Your task to perform on an android device: set default search engine in the chrome app Image 0: 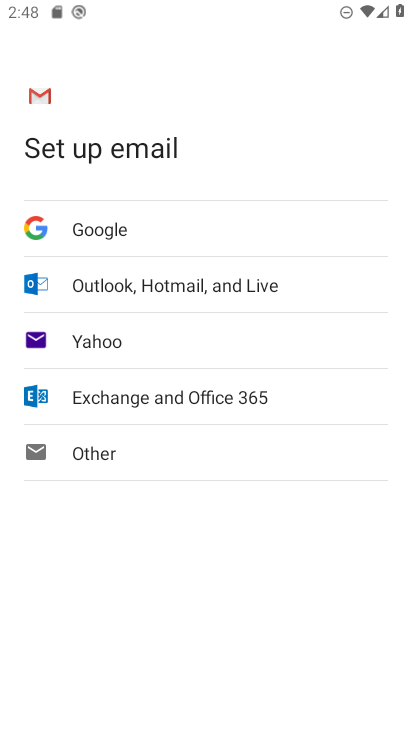
Step 0: press home button
Your task to perform on an android device: set default search engine in the chrome app Image 1: 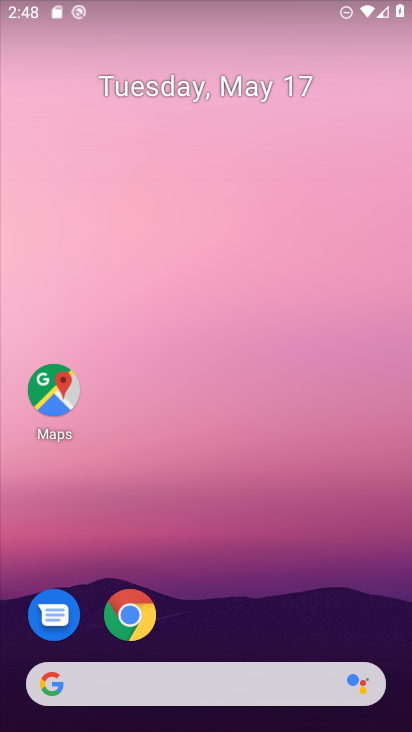
Step 1: click (130, 615)
Your task to perform on an android device: set default search engine in the chrome app Image 2: 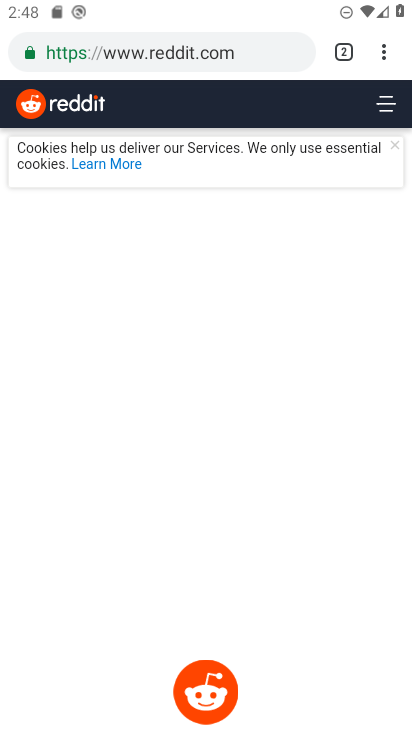
Step 2: click (384, 54)
Your task to perform on an android device: set default search engine in the chrome app Image 3: 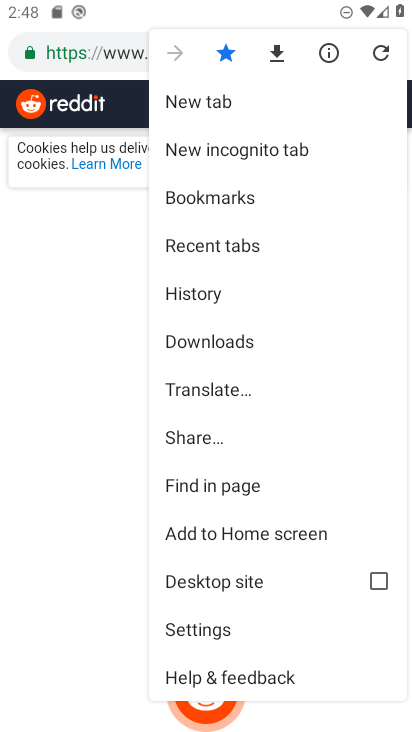
Step 3: click (199, 618)
Your task to perform on an android device: set default search engine in the chrome app Image 4: 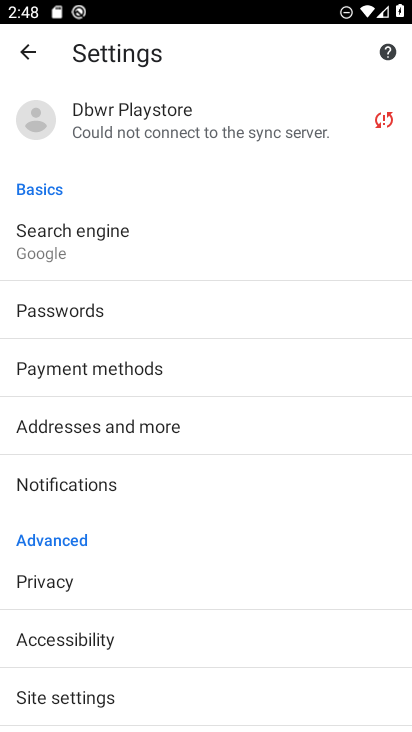
Step 4: click (65, 246)
Your task to perform on an android device: set default search engine in the chrome app Image 5: 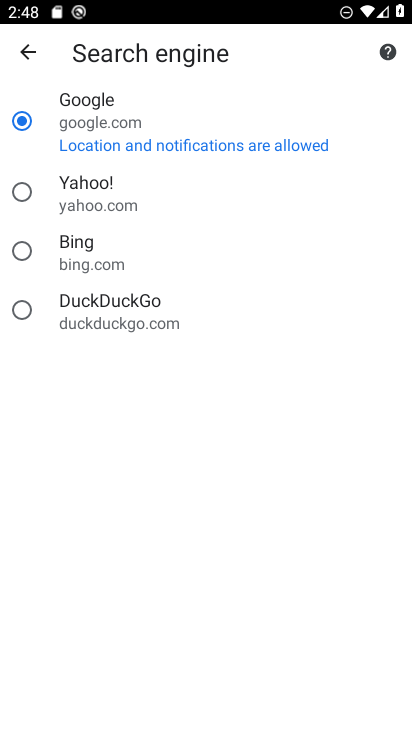
Step 5: click (22, 247)
Your task to perform on an android device: set default search engine in the chrome app Image 6: 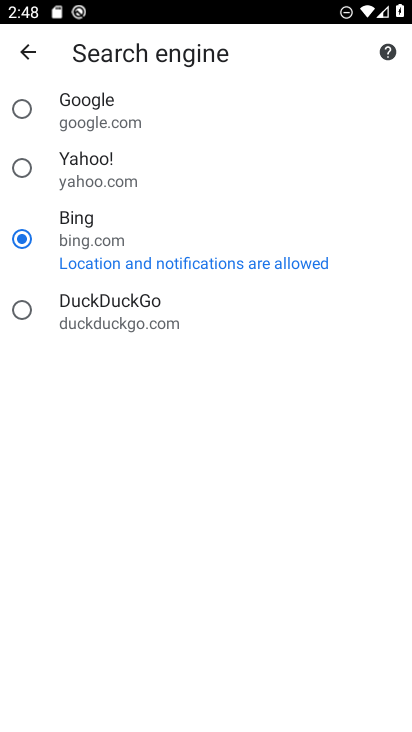
Step 6: task complete